Your task to perform on an android device: open wifi settings Image 0: 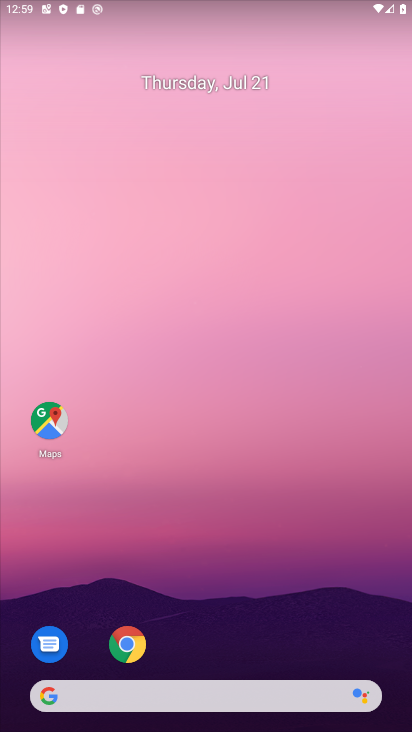
Step 0: drag from (269, 663) to (273, 91)
Your task to perform on an android device: open wifi settings Image 1: 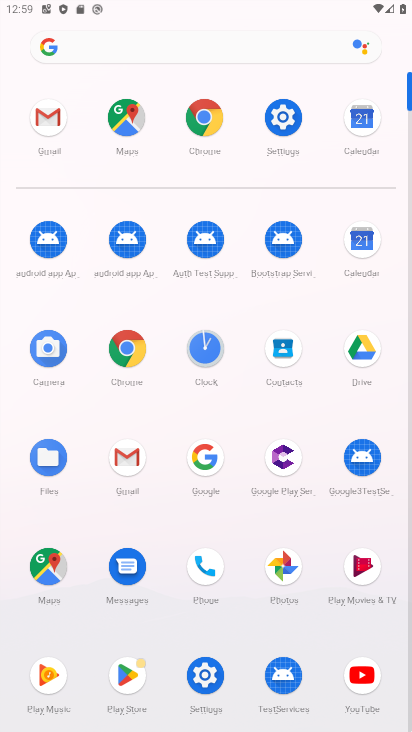
Step 1: click (206, 661)
Your task to perform on an android device: open wifi settings Image 2: 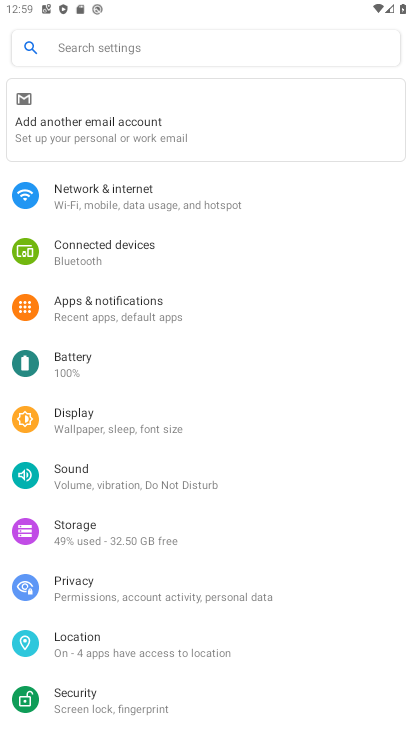
Step 2: click (119, 206)
Your task to perform on an android device: open wifi settings Image 3: 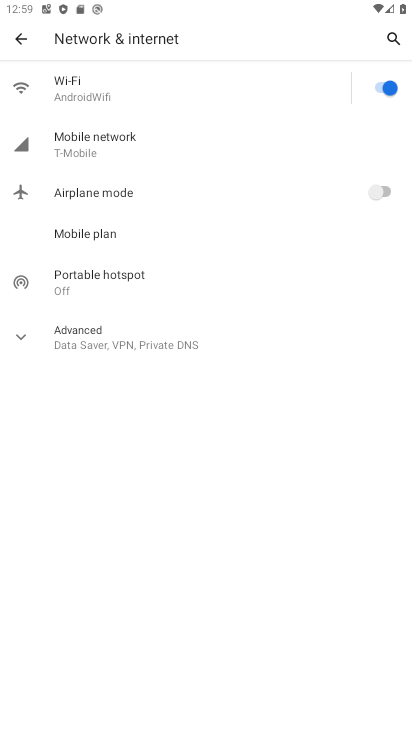
Step 3: click (51, 84)
Your task to perform on an android device: open wifi settings Image 4: 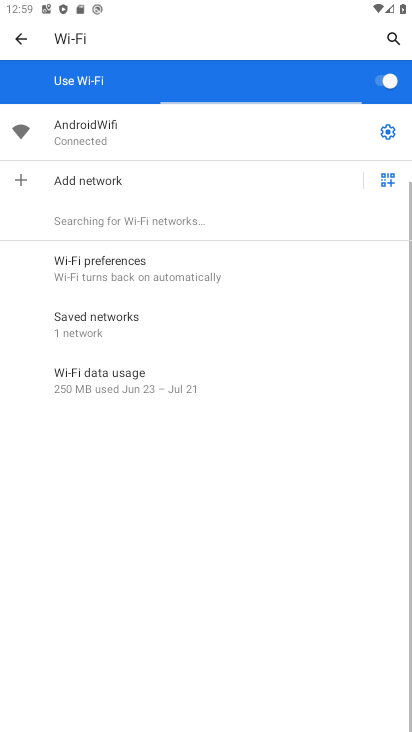
Step 4: task complete